Your task to perform on an android device: toggle improve location accuracy Image 0: 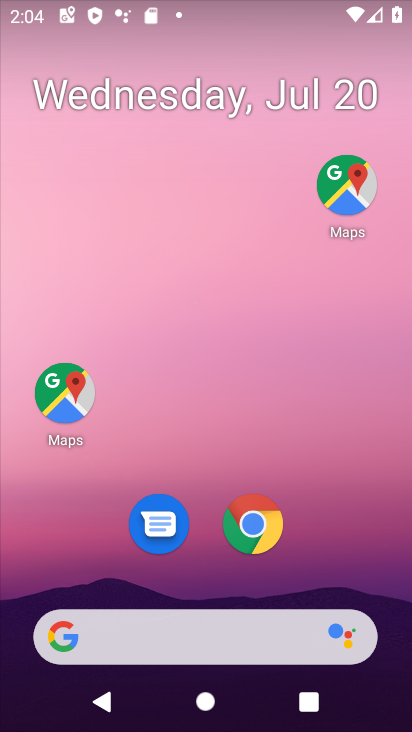
Step 0: drag from (299, 549) to (346, 1)
Your task to perform on an android device: toggle improve location accuracy Image 1: 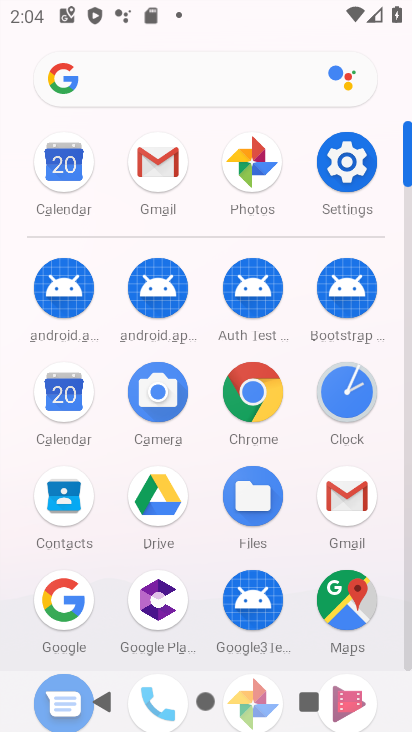
Step 1: click (343, 158)
Your task to perform on an android device: toggle improve location accuracy Image 2: 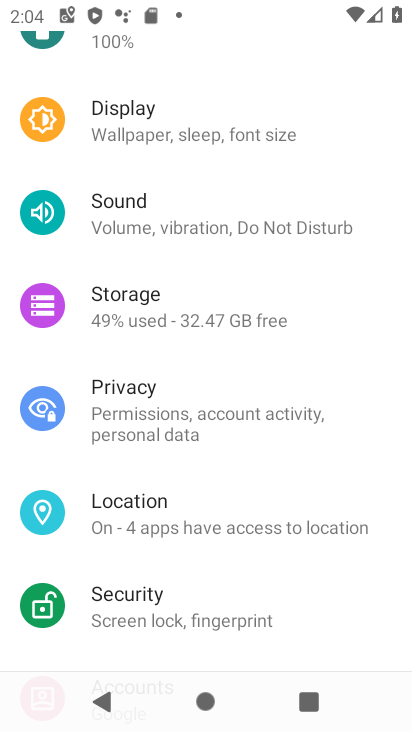
Step 2: click (211, 532)
Your task to perform on an android device: toggle improve location accuracy Image 3: 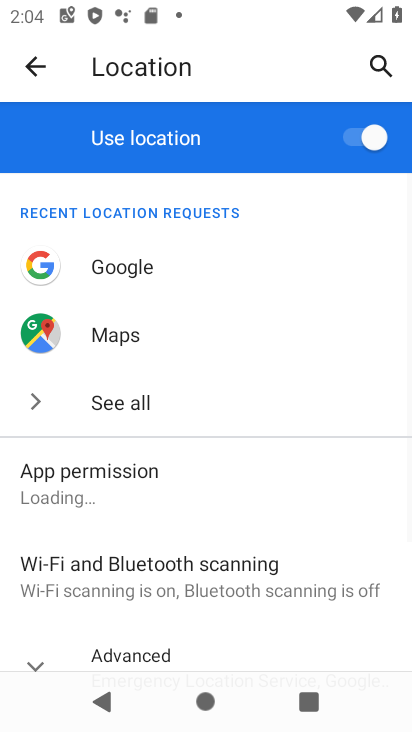
Step 3: drag from (210, 530) to (282, 108)
Your task to perform on an android device: toggle improve location accuracy Image 4: 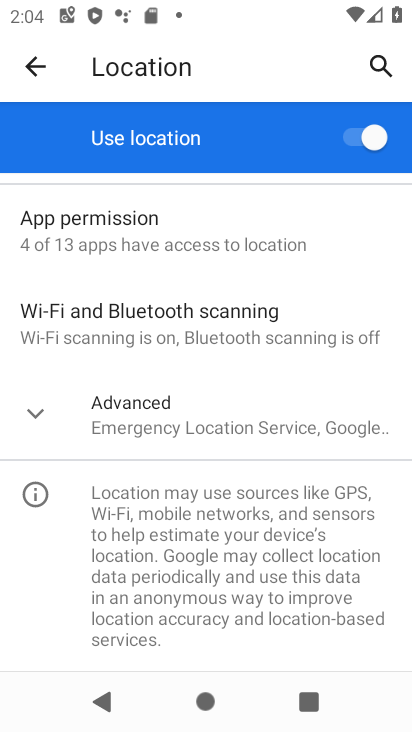
Step 4: click (34, 411)
Your task to perform on an android device: toggle improve location accuracy Image 5: 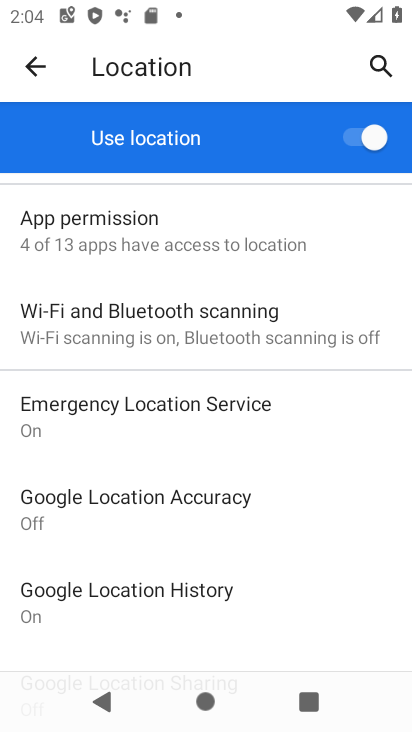
Step 5: click (125, 506)
Your task to perform on an android device: toggle improve location accuracy Image 6: 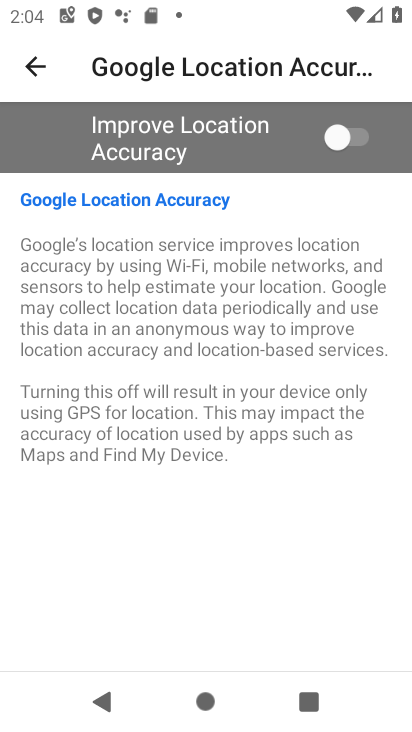
Step 6: click (350, 133)
Your task to perform on an android device: toggle improve location accuracy Image 7: 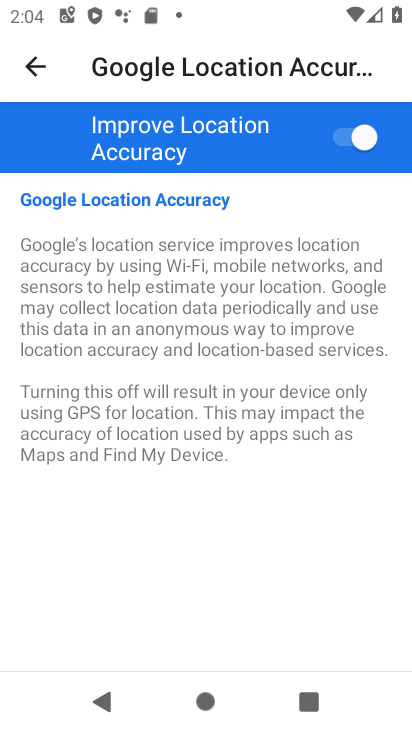
Step 7: task complete